Your task to perform on an android device: change the clock display to analog Image 0: 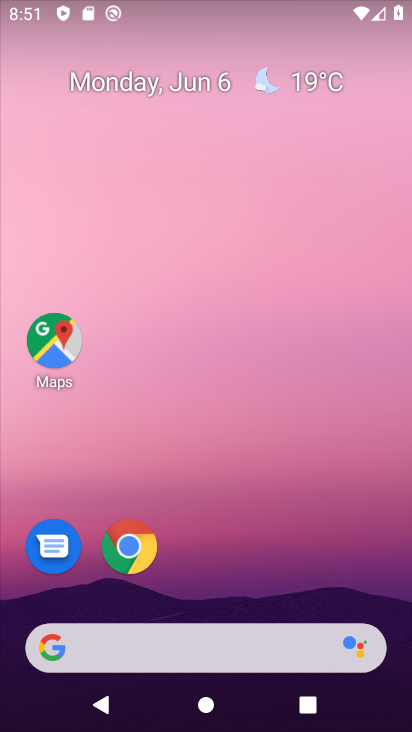
Step 0: drag from (172, 728) to (229, 146)
Your task to perform on an android device: change the clock display to analog Image 1: 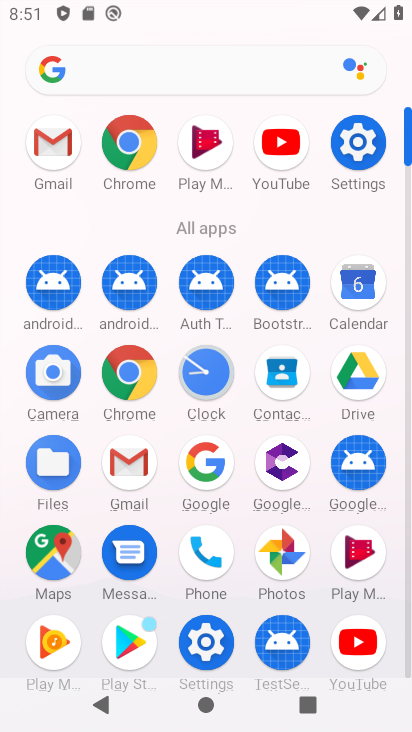
Step 1: click (197, 387)
Your task to perform on an android device: change the clock display to analog Image 2: 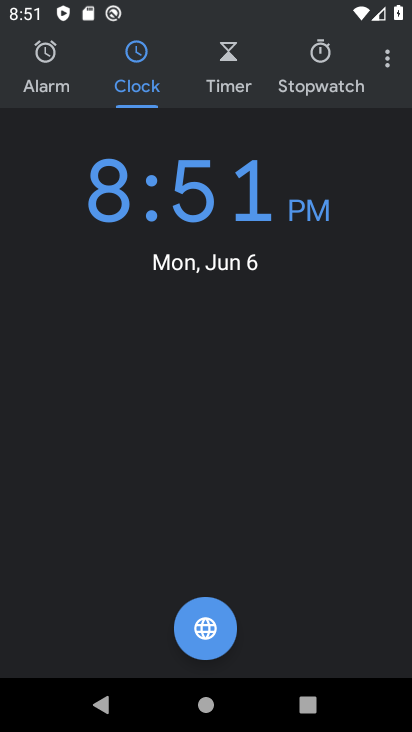
Step 2: click (380, 66)
Your task to perform on an android device: change the clock display to analog Image 3: 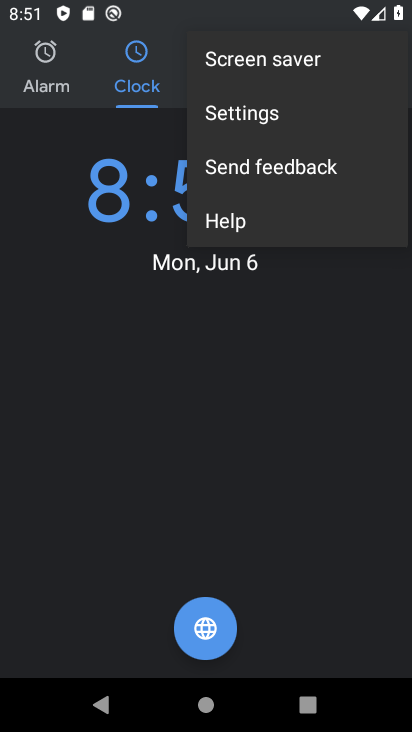
Step 3: click (309, 128)
Your task to perform on an android device: change the clock display to analog Image 4: 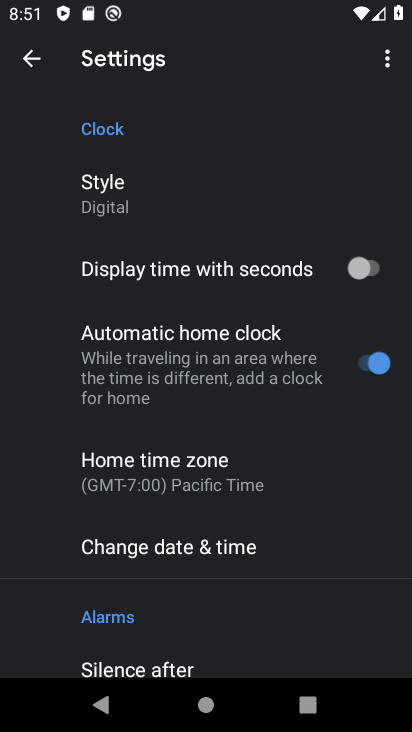
Step 4: click (113, 179)
Your task to perform on an android device: change the clock display to analog Image 5: 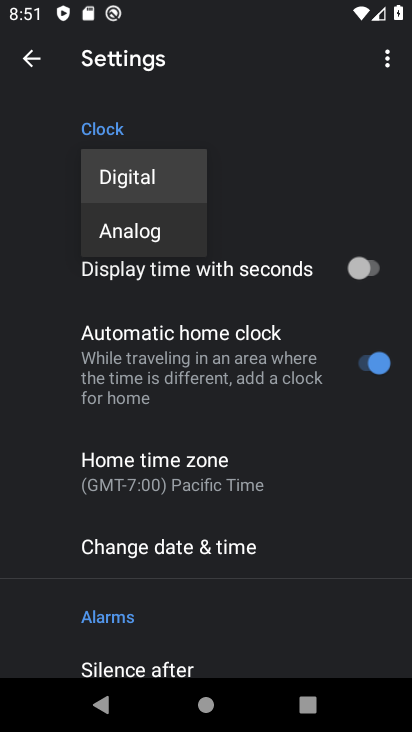
Step 5: click (154, 234)
Your task to perform on an android device: change the clock display to analog Image 6: 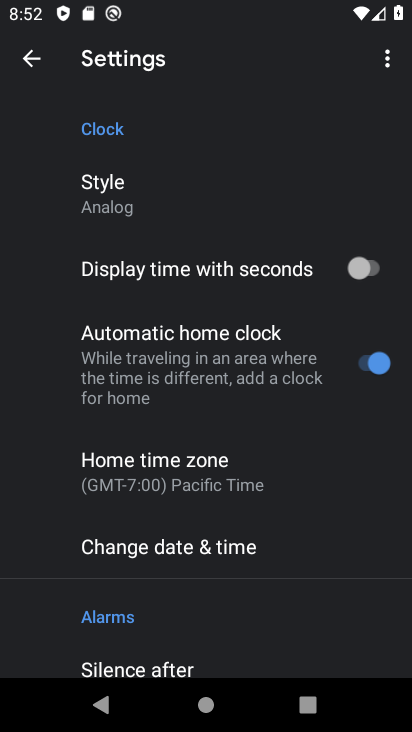
Step 6: task complete